Your task to perform on an android device: Show me popular games on the Play Store Image 0: 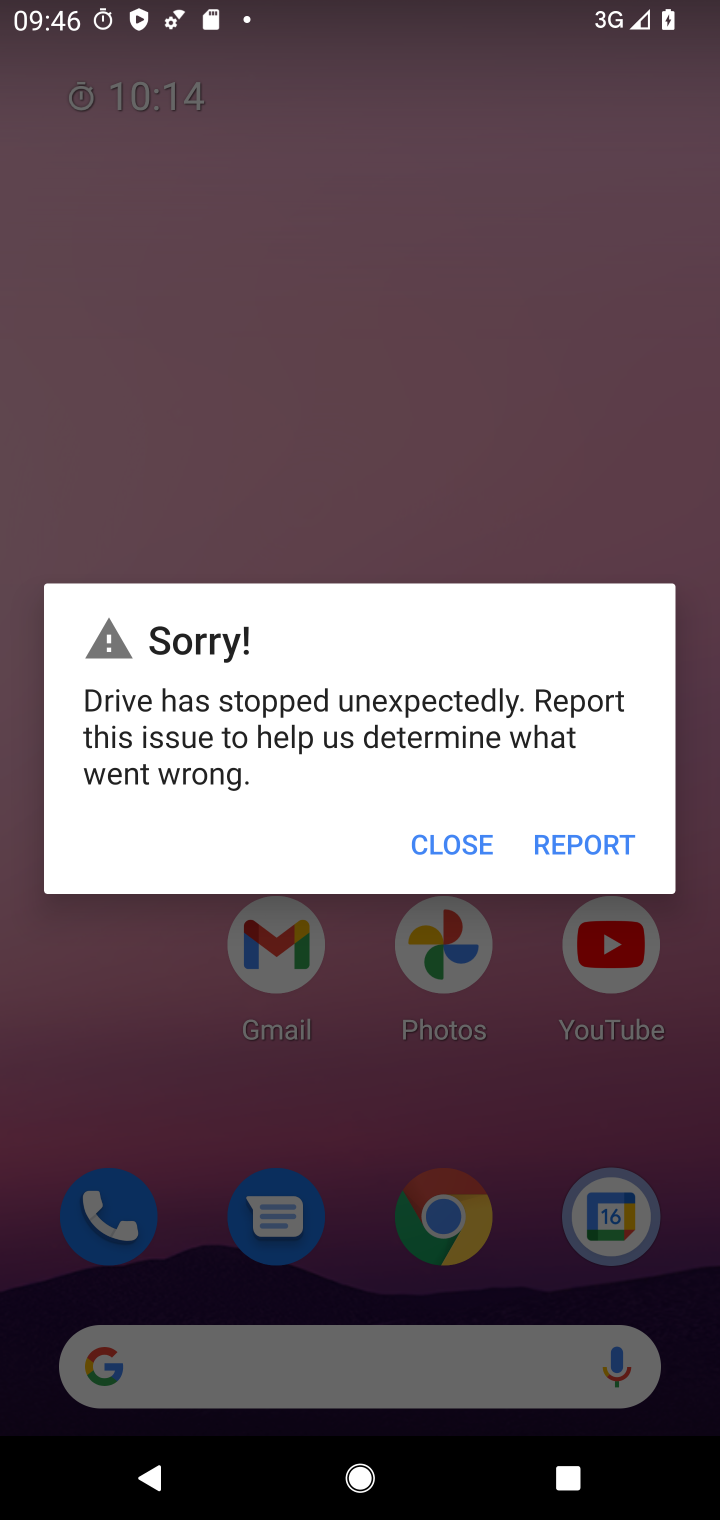
Step 0: drag from (393, 1301) to (357, 523)
Your task to perform on an android device: Show me popular games on the Play Store Image 1: 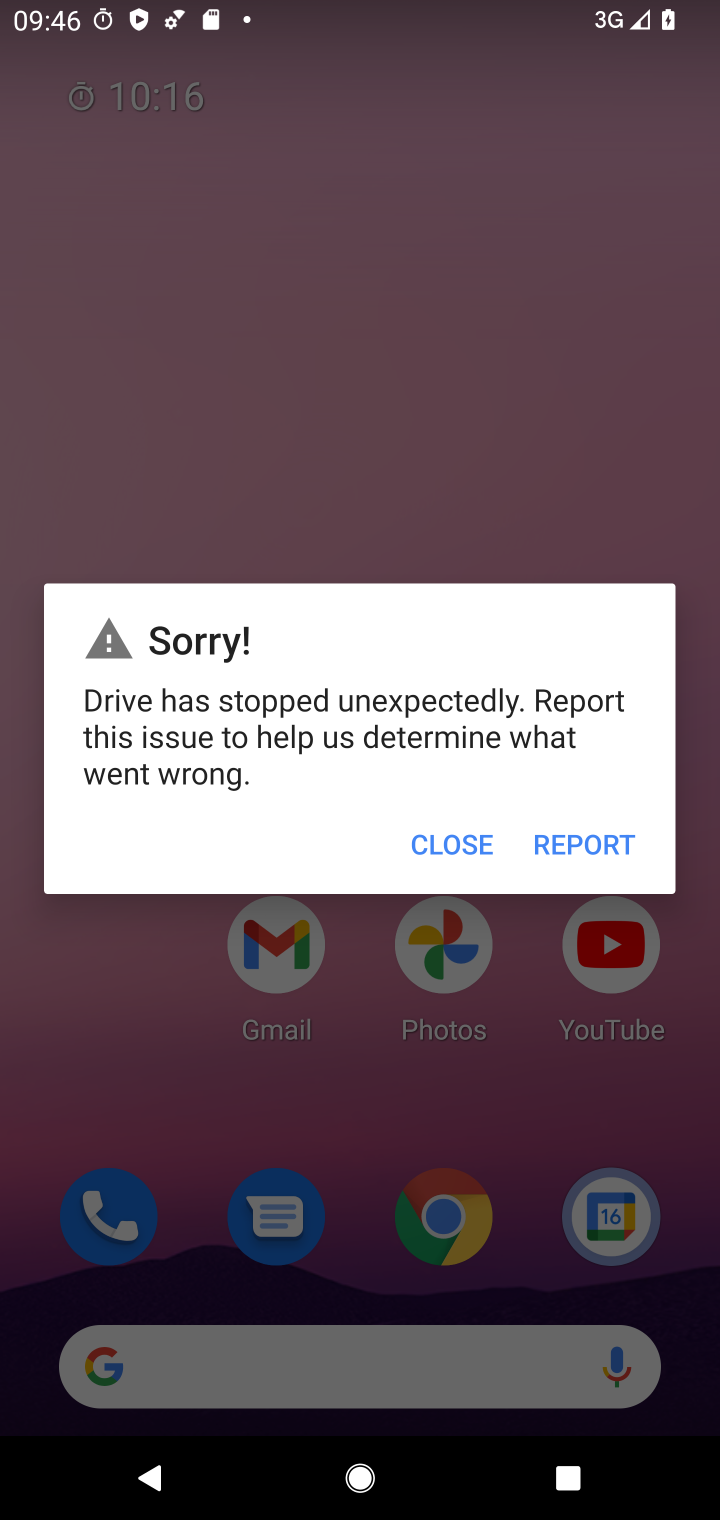
Step 1: click (454, 835)
Your task to perform on an android device: Show me popular games on the Play Store Image 2: 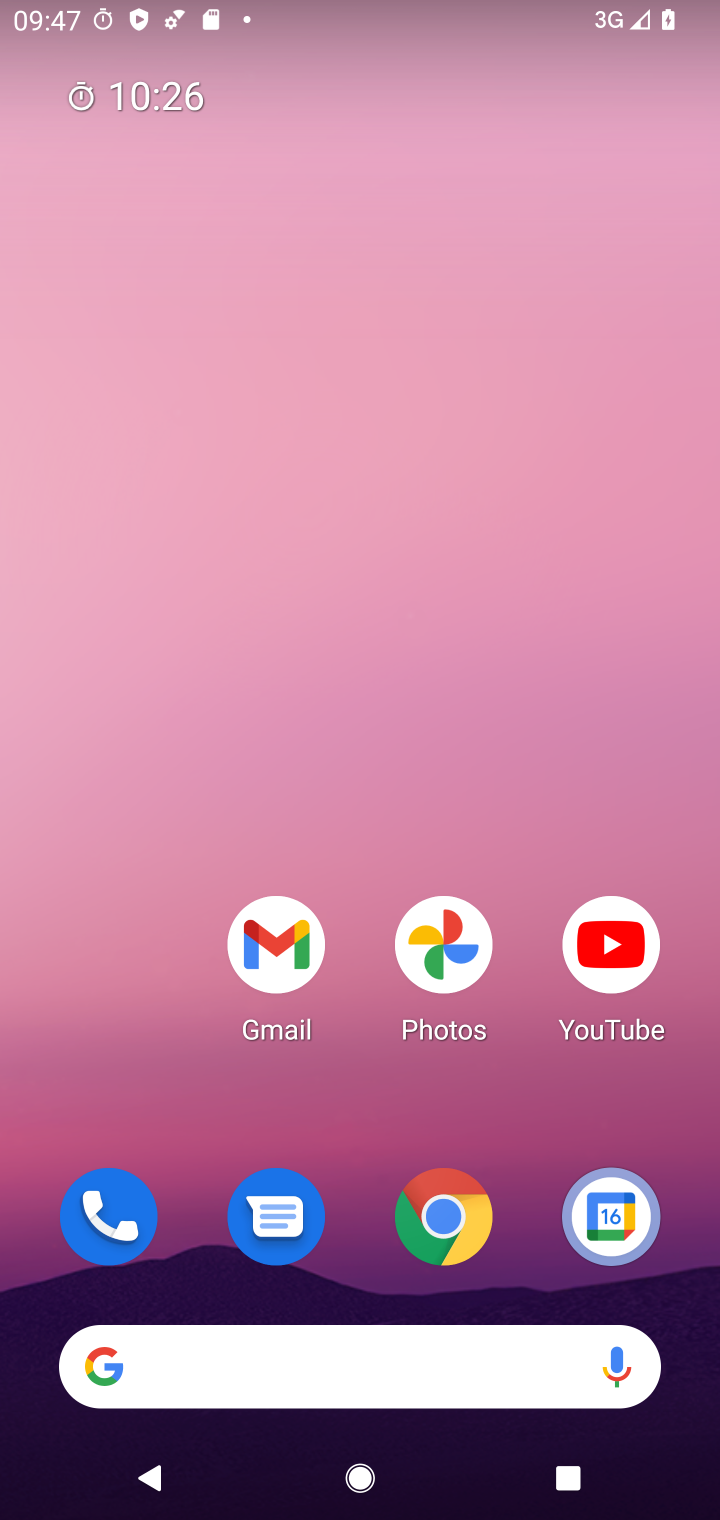
Step 2: drag from (351, 1094) to (302, 279)
Your task to perform on an android device: Show me popular games on the Play Store Image 3: 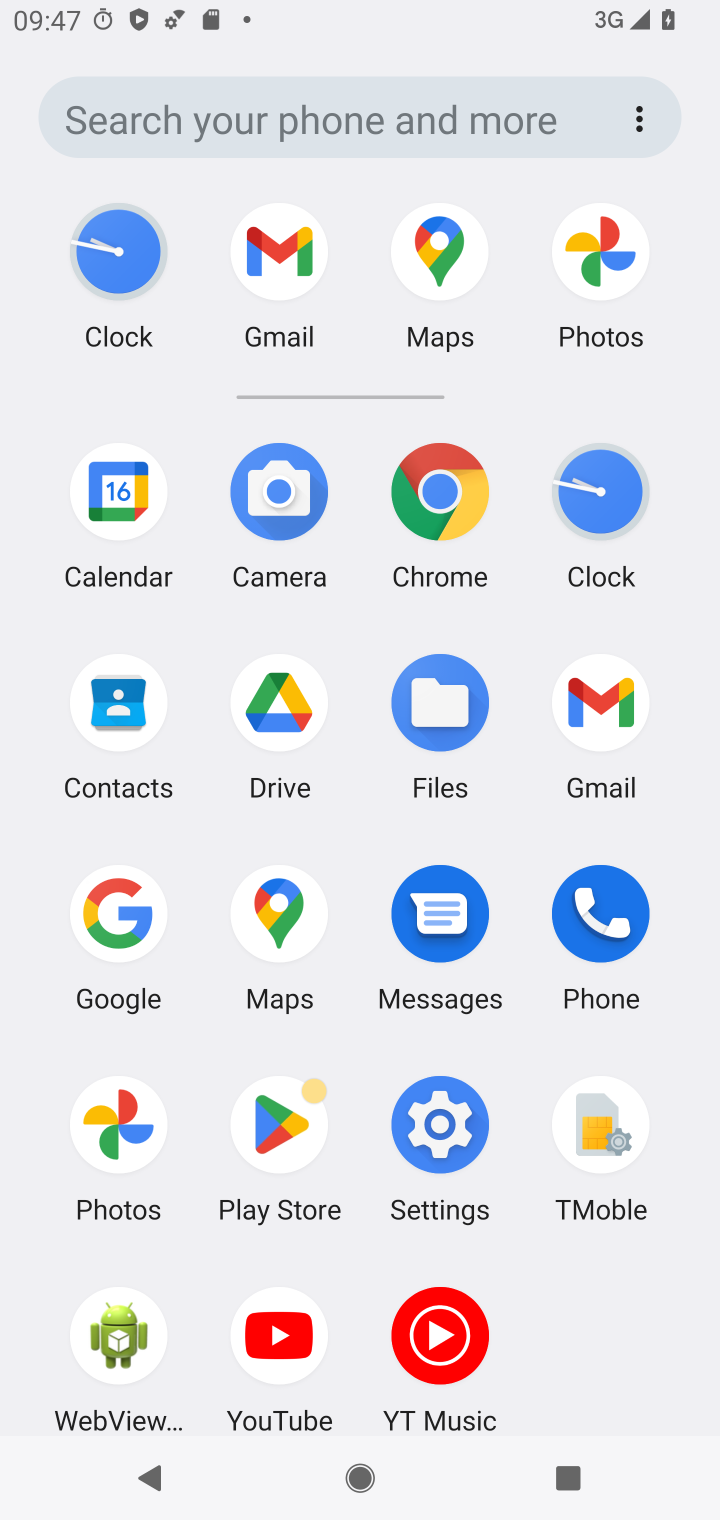
Step 3: click (294, 1121)
Your task to perform on an android device: Show me popular games on the Play Store Image 4: 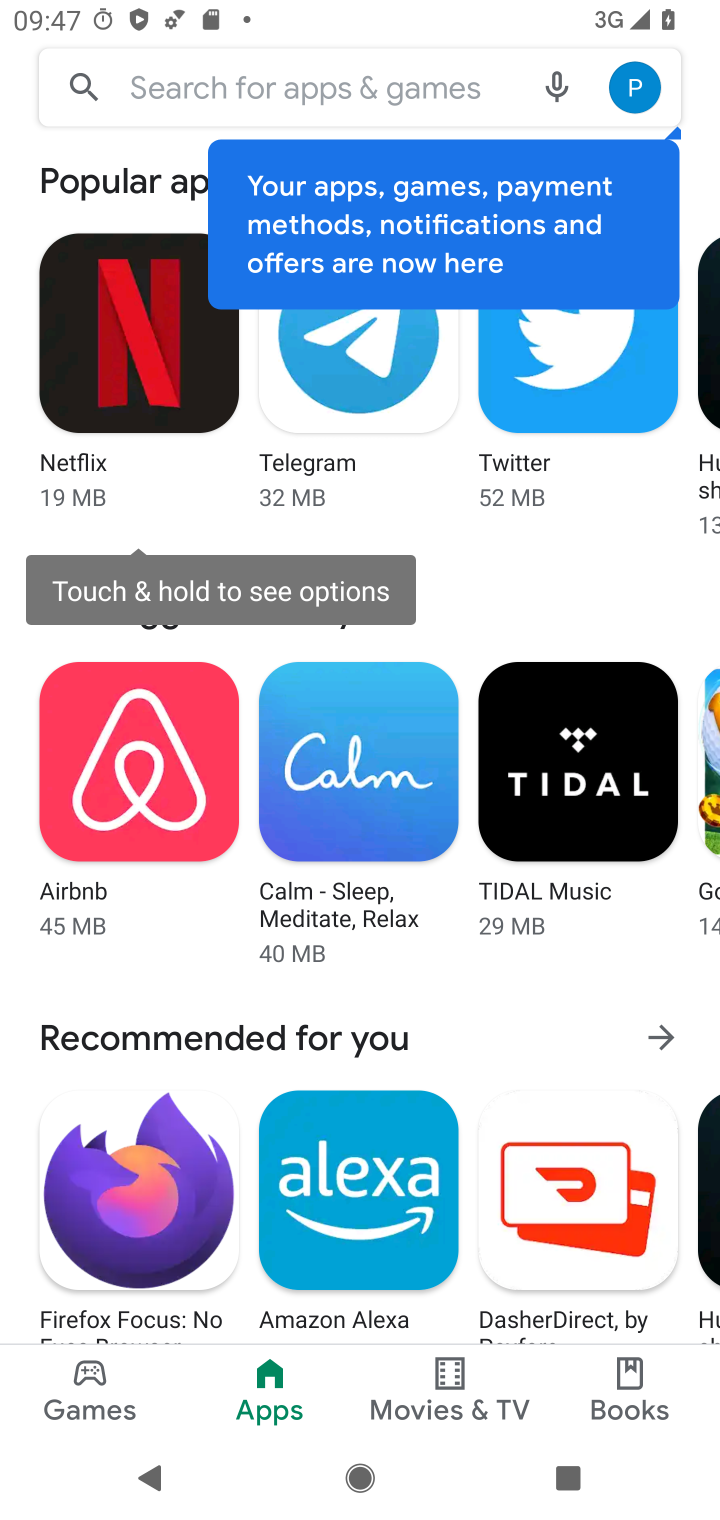
Step 4: click (94, 180)
Your task to perform on an android device: Show me popular games on the Play Store Image 5: 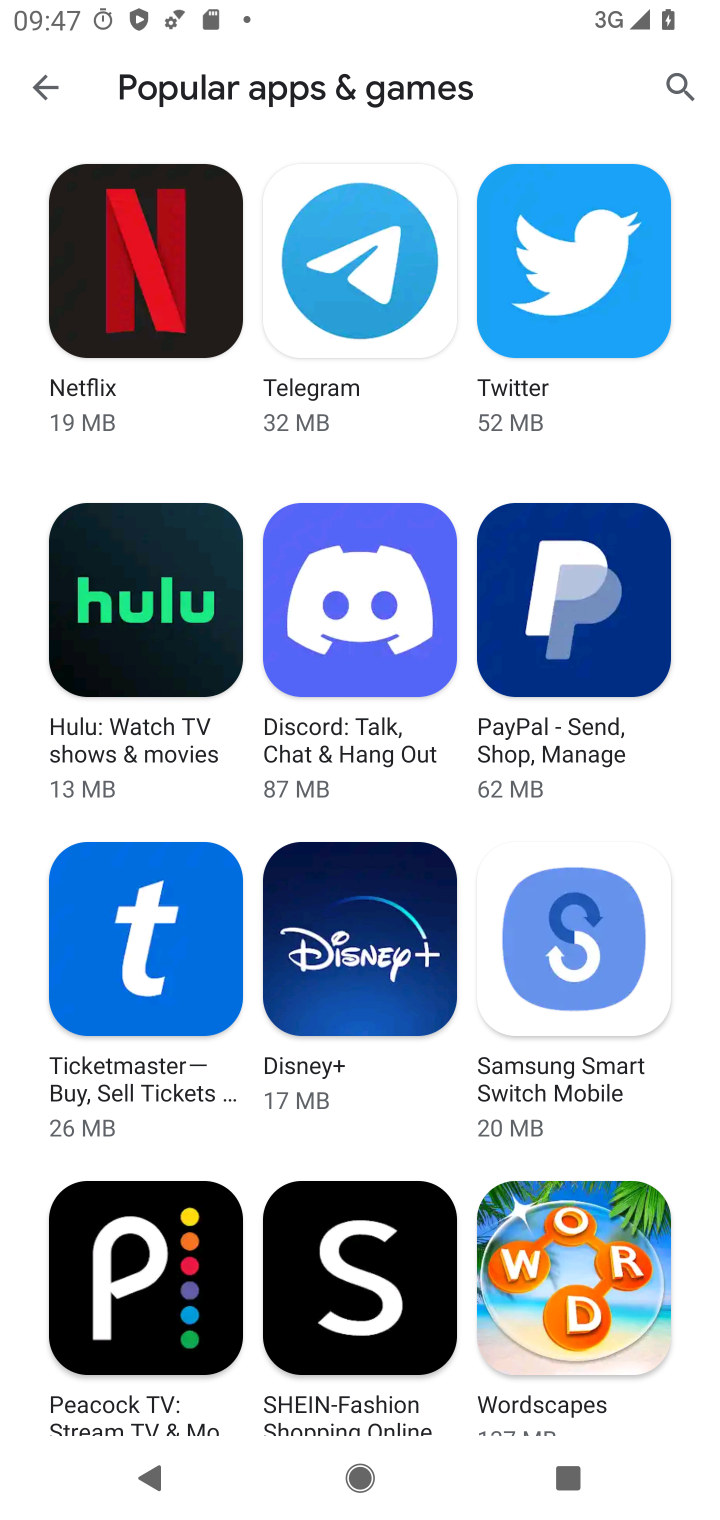
Step 5: task complete